Your task to perform on an android device: Open wifi settings Image 0: 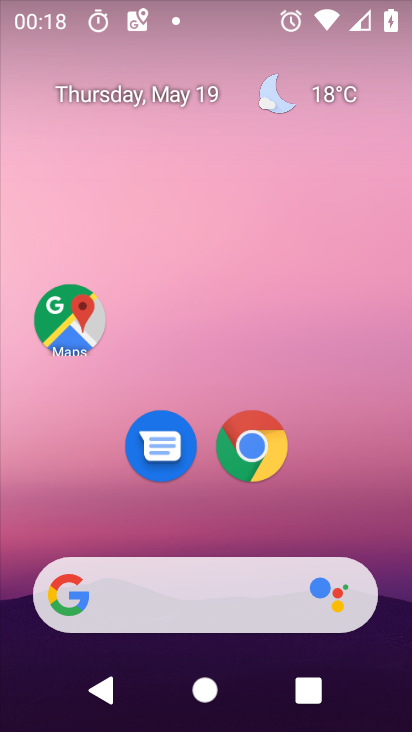
Step 0: press home button
Your task to perform on an android device: Open wifi settings Image 1: 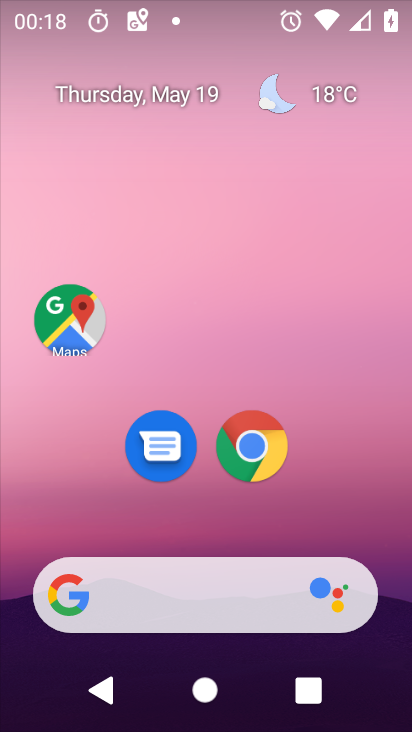
Step 1: drag from (186, 585) to (319, 112)
Your task to perform on an android device: Open wifi settings Image 2: 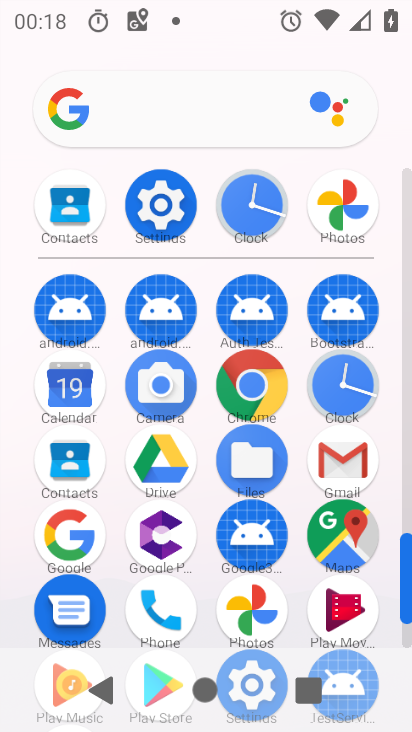
Step 2: click (155, 210)
Your task to perform on an android device: Open wifi settings Image 3: 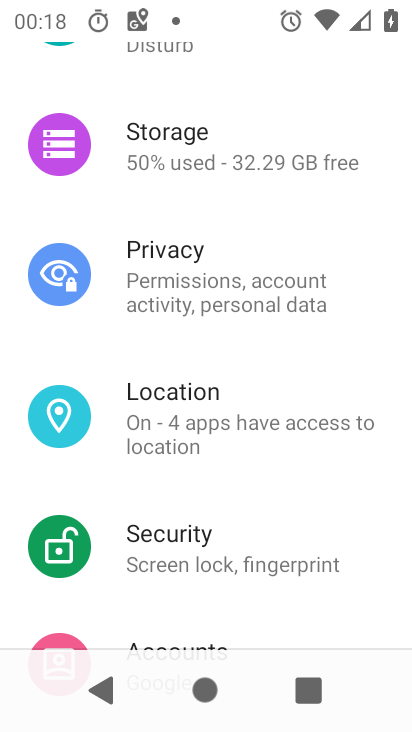
Step 3: drag from (350, 98) to (246, 608)
Your task to perform on an android device: Open wifi settings Image 4: 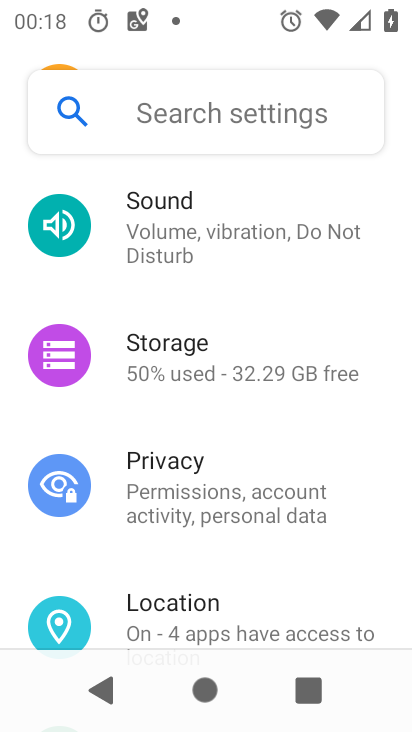
Step 4: drag from (251, 192) to (190, 570)
Your task to perform on an android device: Open wifi settings Image 5: 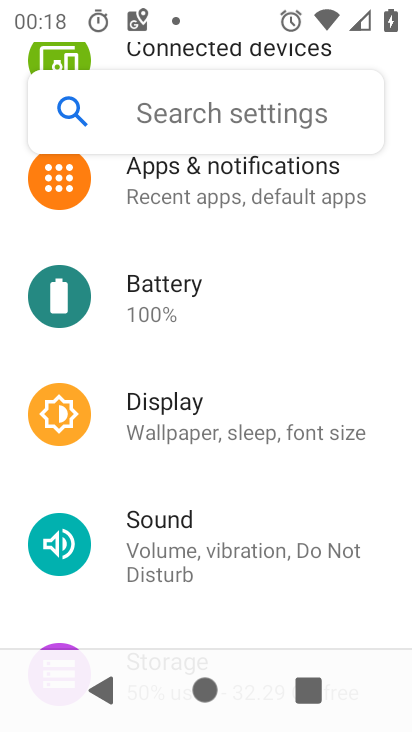
Step 5: drag from (288, 220) to (280, 605)
Your task to perform on an android device: Open wifi settings Image 6: 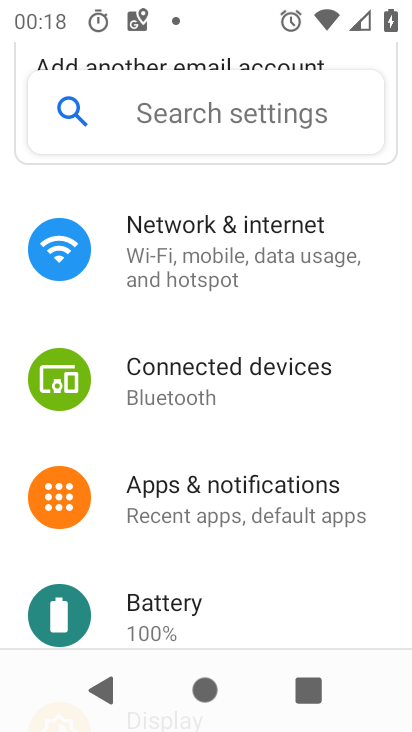
Step 6: click (238, 251)
Your task to perform on an android device: Open wifi settings Image 7: 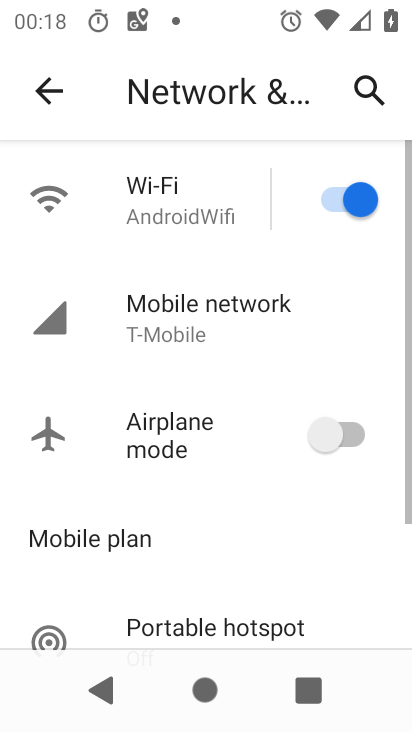
Step 7: click (174, 215)
Your task to perform on an android device: Open wifi settings Image 8: 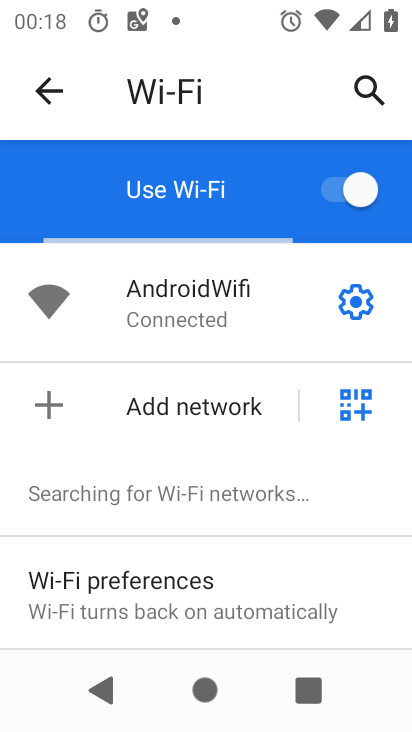
Step 8: task complete